Your task to perform on an android device: Open battery settings Image 0: 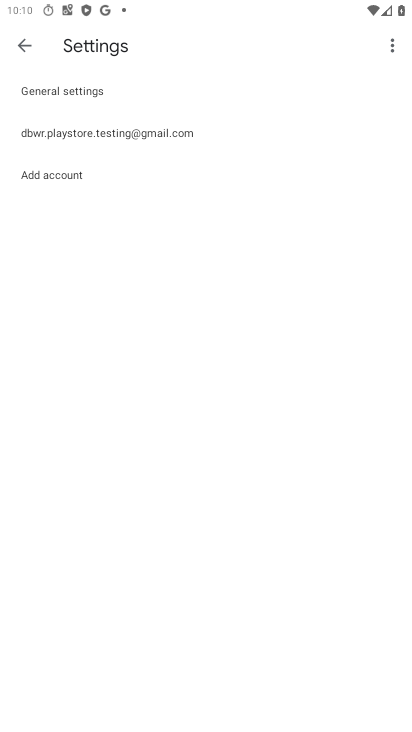
Step 0: press home button
Your task to perform on an android device: Open battery settings Image 1: 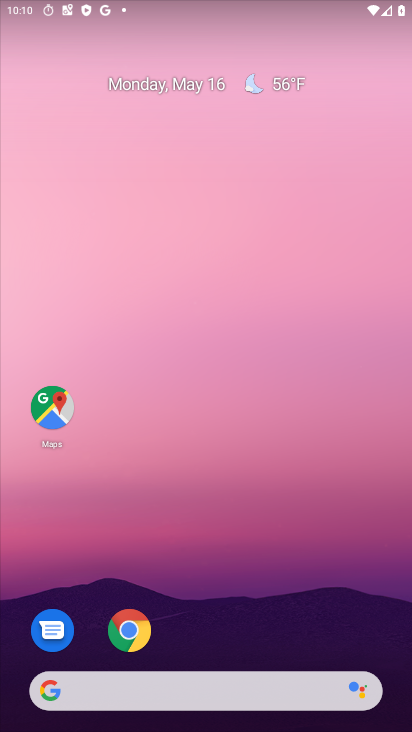
Step 1: drag from (224, 539) to (331, 0)
Your task to perform on an android device: Open battery settings Image 2: 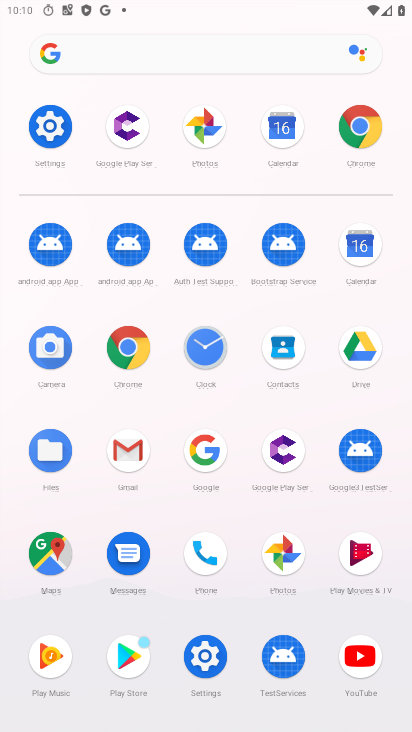
Step 2: click (213, 667)
Your task to perform on an android device: Open battery settings Image 3: 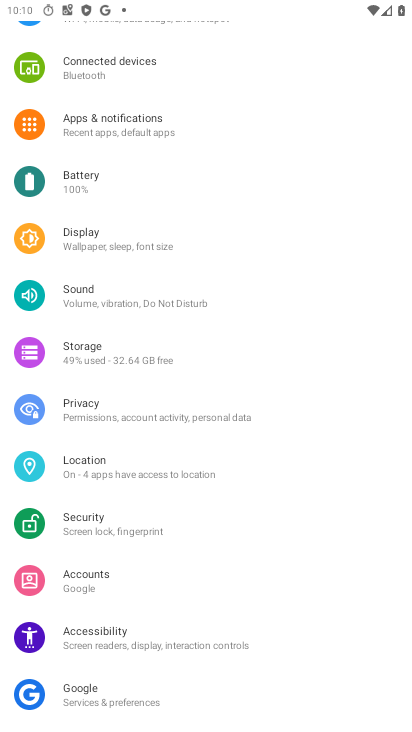
Step 3: click (91, 179)
Your task to perform on an android device: Open battery settings Image 4: 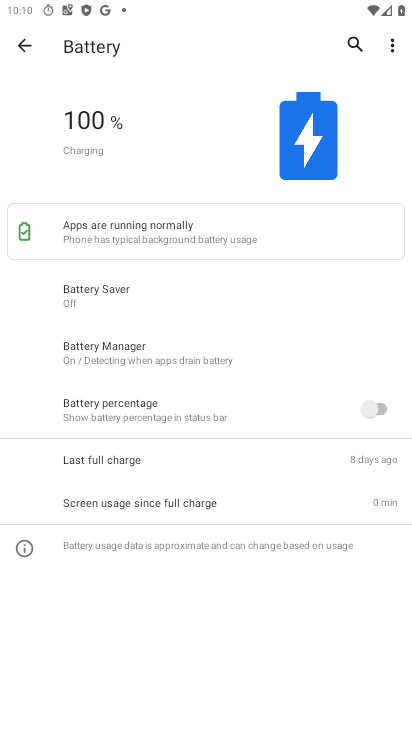
Step 4: task complete